Your task to perform on an android device: Search for 3d printed chess sets on Etsy. Image 0: 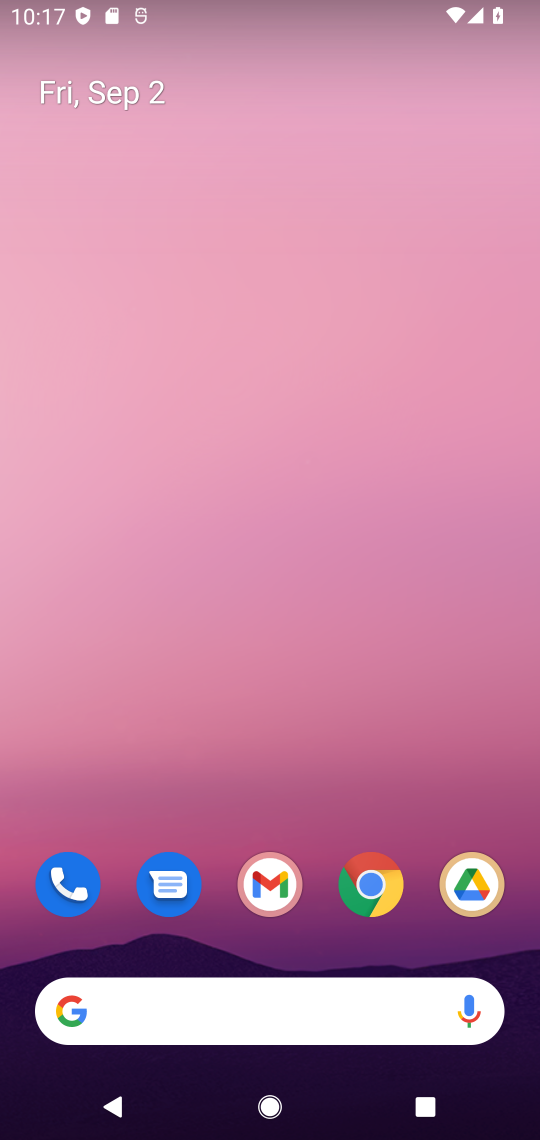
Step 0: click (433, 317)
Your task to perform on an android device: Search for 3d printed chess sets on Etsy. Image 1: 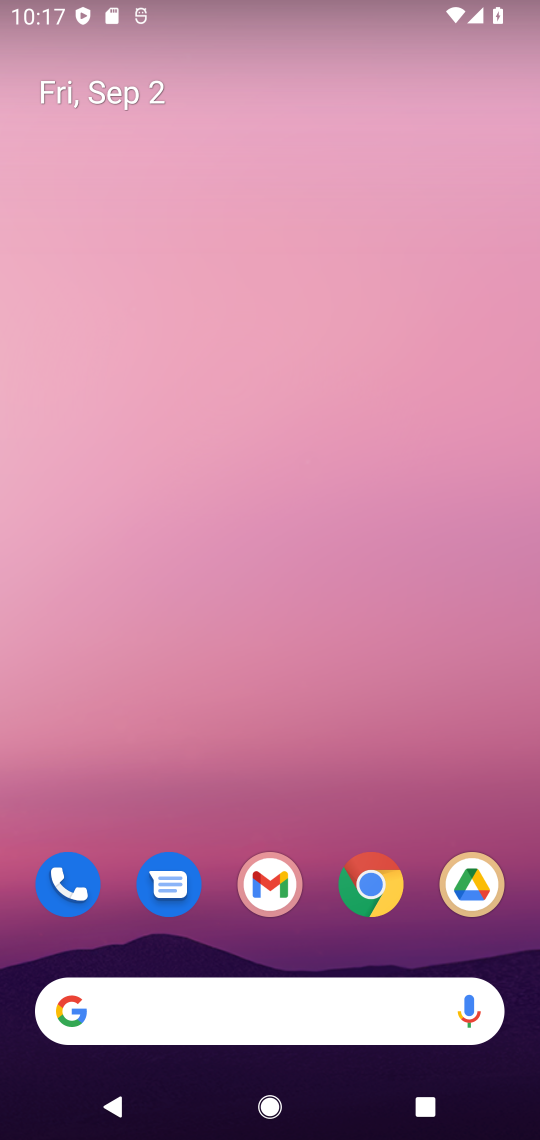
Step 1: click (380, 116)
Your task to perform on an android device: Search for 3d printed chess sets on Etsy. Image 2: 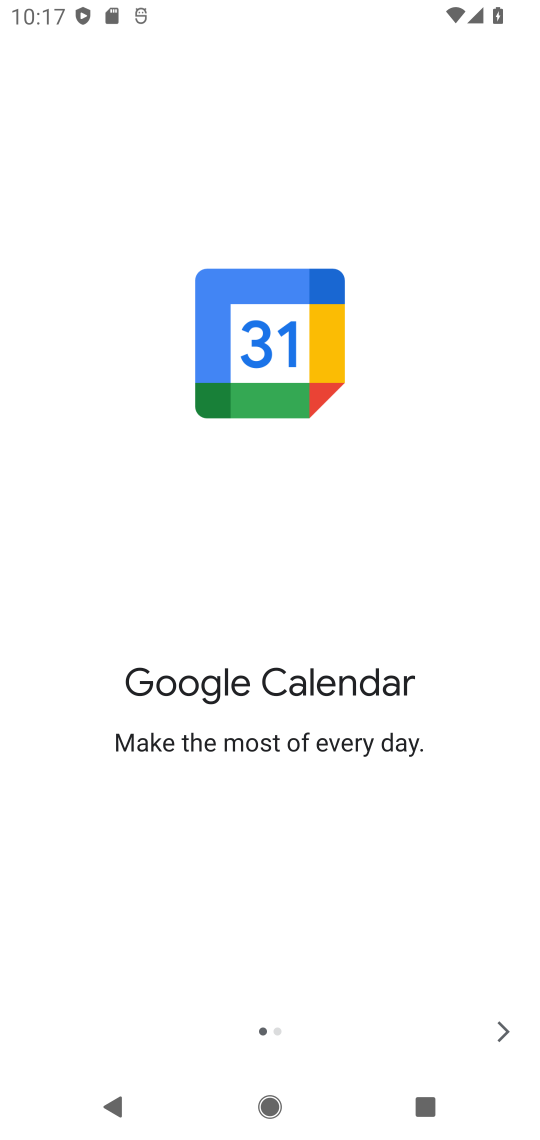
Step 2: press home button
Your task to perform on an android device: Search for 3d printed chess sets on Etsy. Image 3: 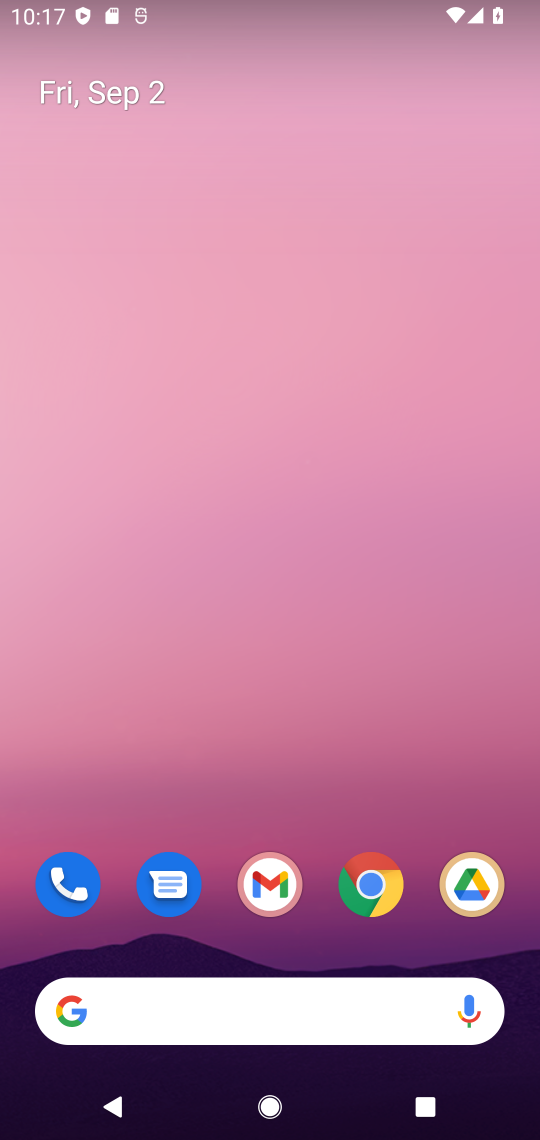
Step 3: click (382, 891)
Your task to perform on an android device: Search for 3d printed chess sets on Etsy. Image 4: 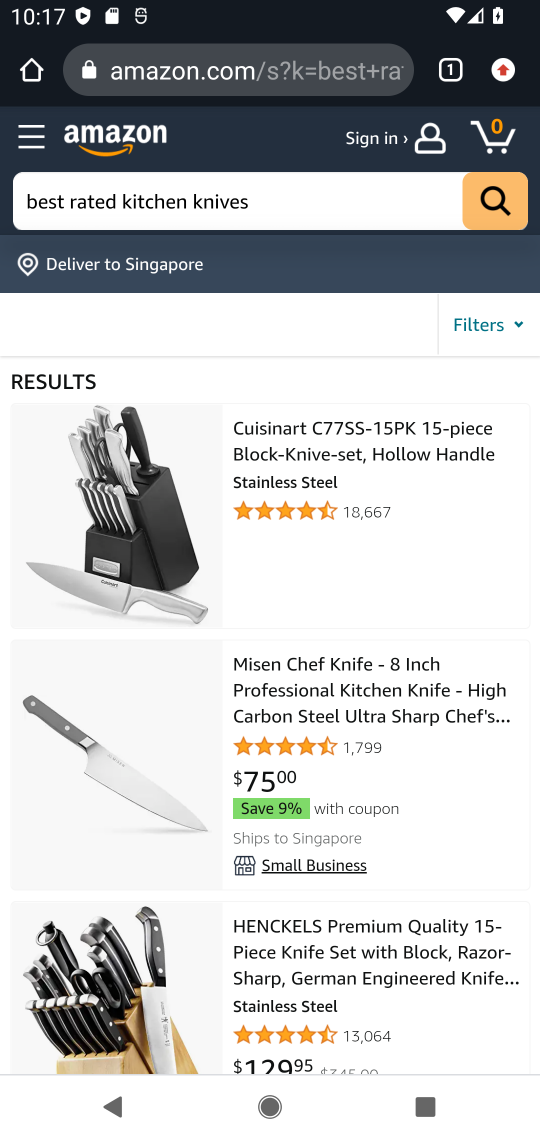
Step 4: click (336, 67)
Your task to perform on an android device: Search for 3d printed chess sets on Etsy. Image 5: 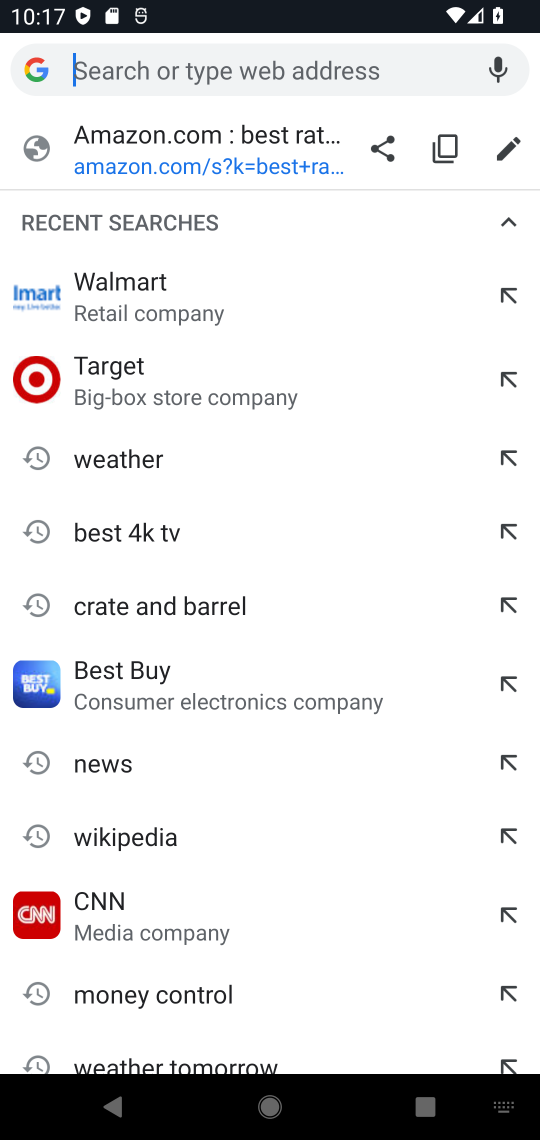
Step 5: type "Etsy"
Your task to perform on an android device: Search for 3d printed chess sets on Etsy. Image 6: 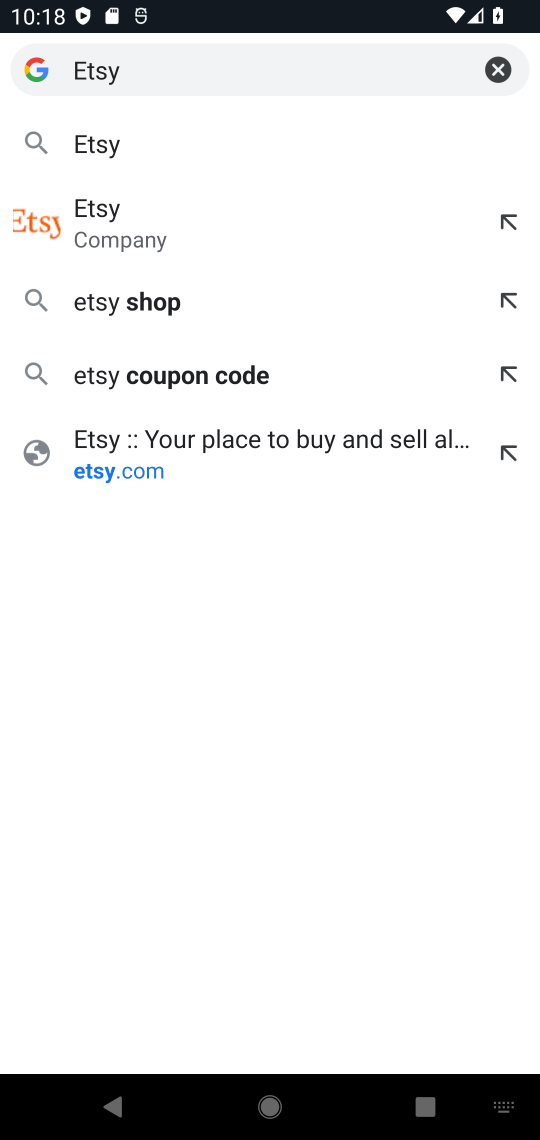
Step 6: click (222, 445)
Your task to perform on an android device: Search for 3d printed chess sets on Etsy. Image 7: 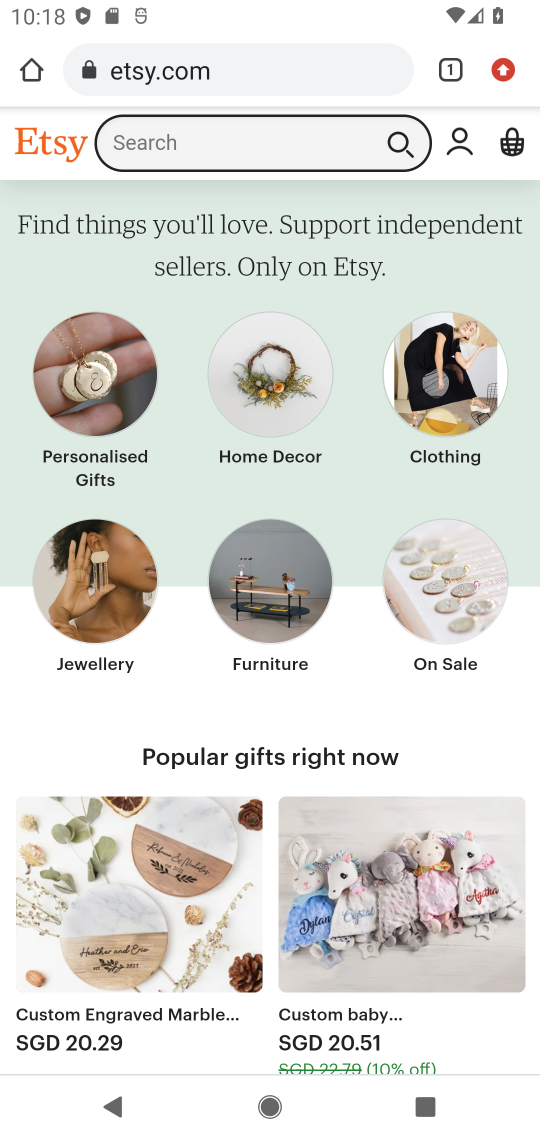
Step 7: click (322, 154)
Your task to perform on an android device: Search for 3d printed chess sets on Etsy. Image 8: 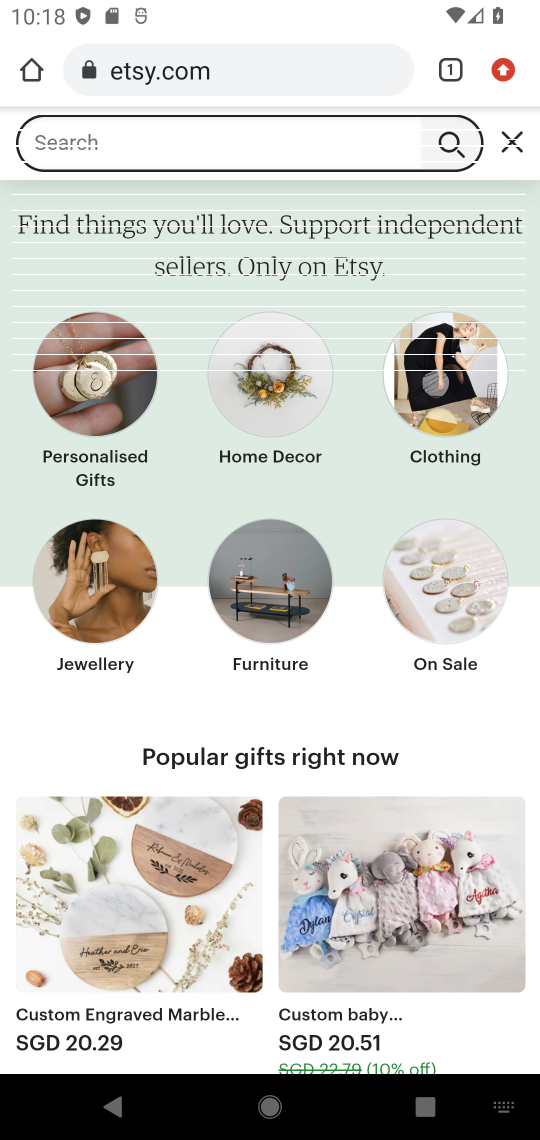
Step 8: type "3D printed chess sets"
Your task to perform on an android device: Search for 3d printed chess sets on Etsy. Image 9: 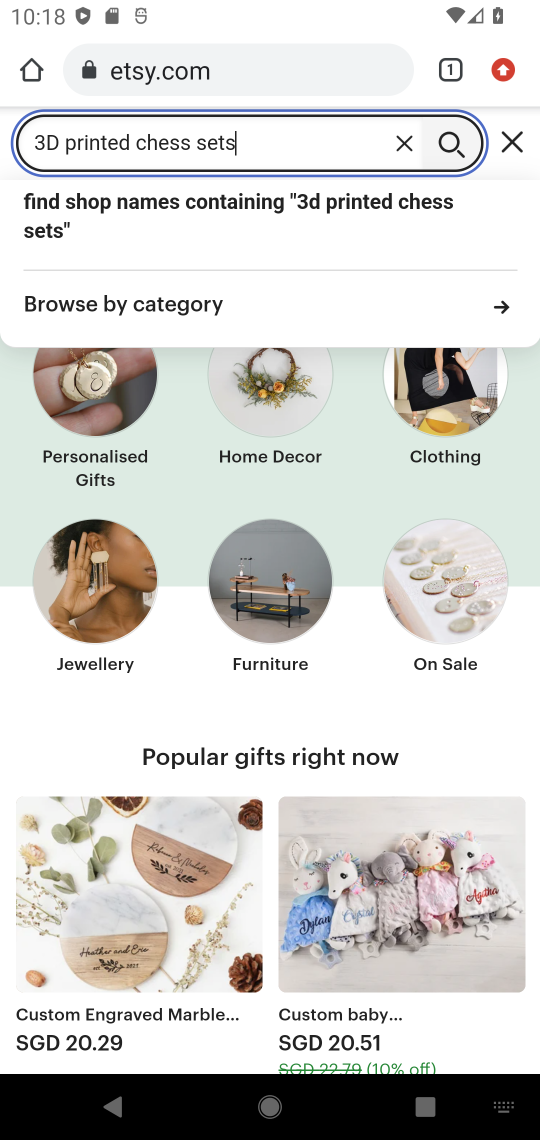
Step 9: click (450, 139)
Your task to perform on an android device: Search for 3d printed chess sets on Etsy. Image 10: 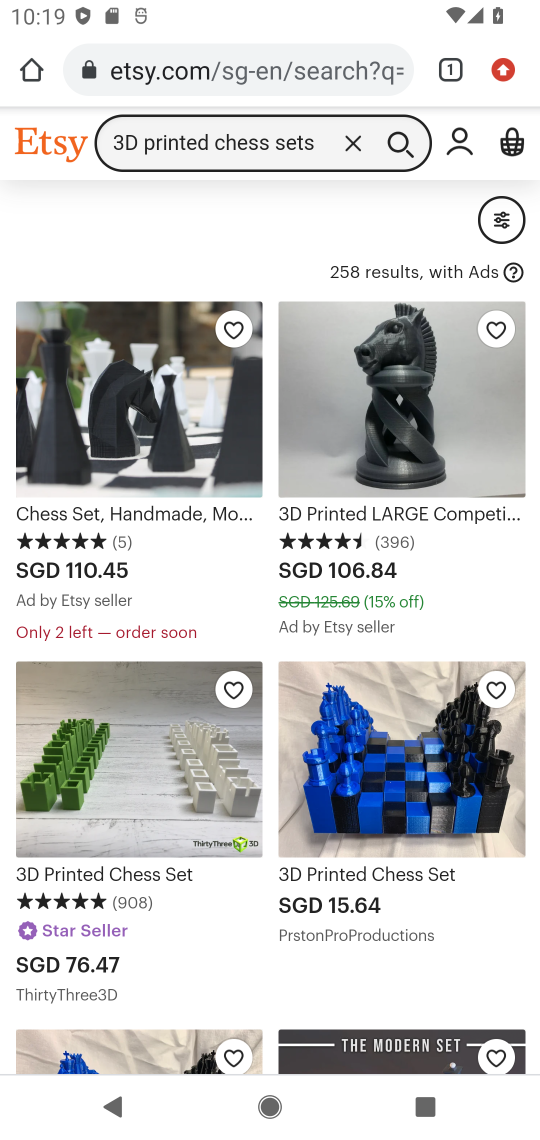
Step 10: task complete